Your task to perform on an android device: set the timer Image 0: 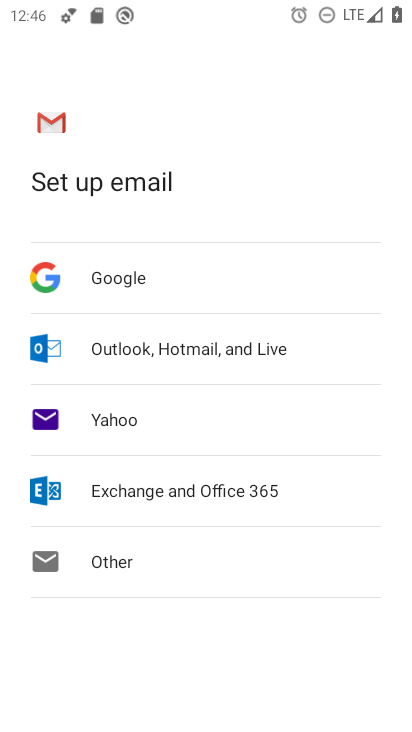
Step 0: press home button
Your task to perform on an android device: set the timer Image 1: 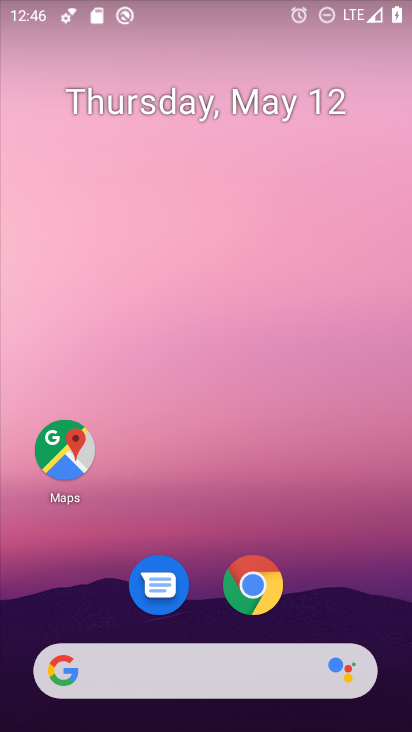
Step 1: drag from (237, 492) to (267, 39)
Your task to perform on an android device: set the timer Image 2: 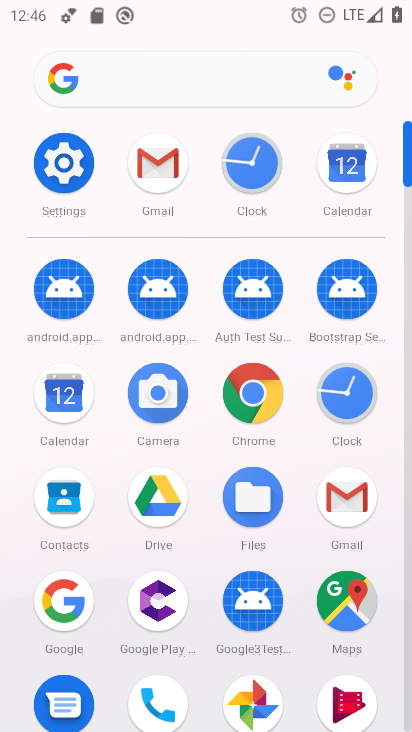
Step 2: click (246, 145)
Your task to perform on an android device: set the timer Image 3: 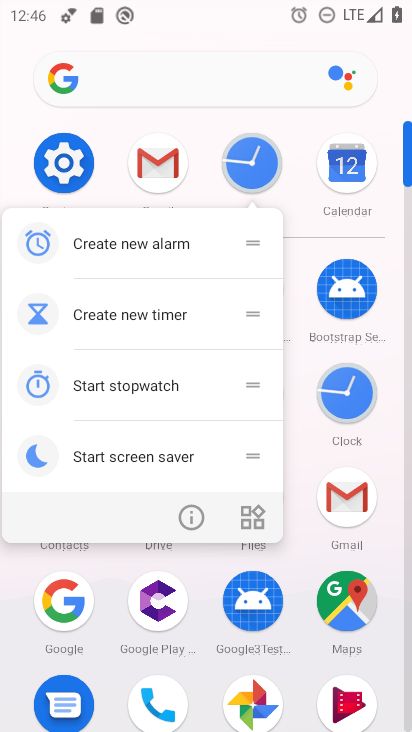
Step 3: click (260, 161)
Your task to perform on an android device: set the timer Image 4: 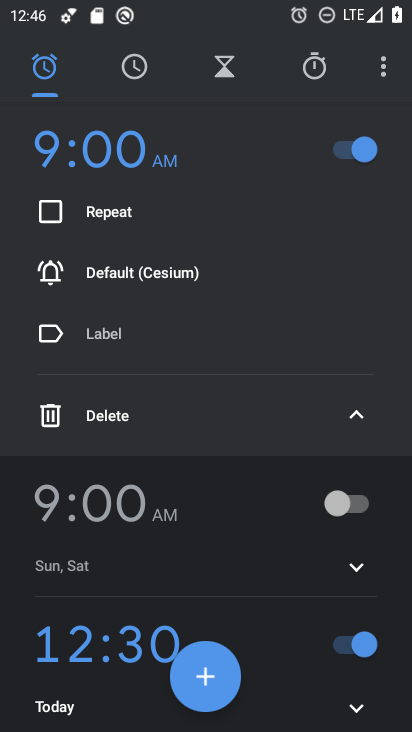
Step 4: click (228, 64)
Your task to perform on an android device: set the timer Image 5: 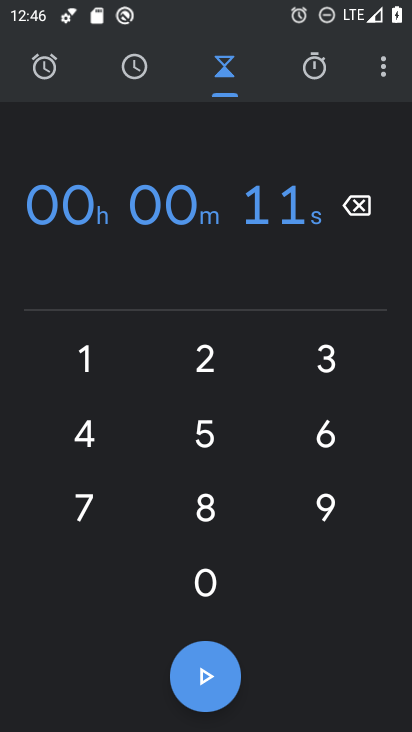
Step 5: click (86, 361)
Your task to perform on an android device: set the timer Image 6: 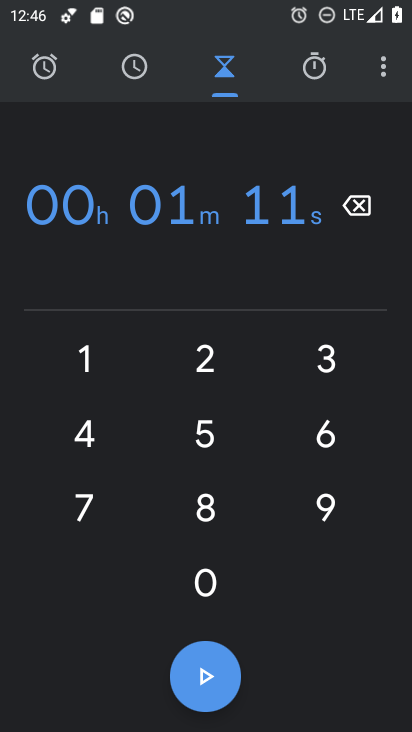
Step 6: click (86, 361)
Your task to perform on an android device: set the timer Image 7: 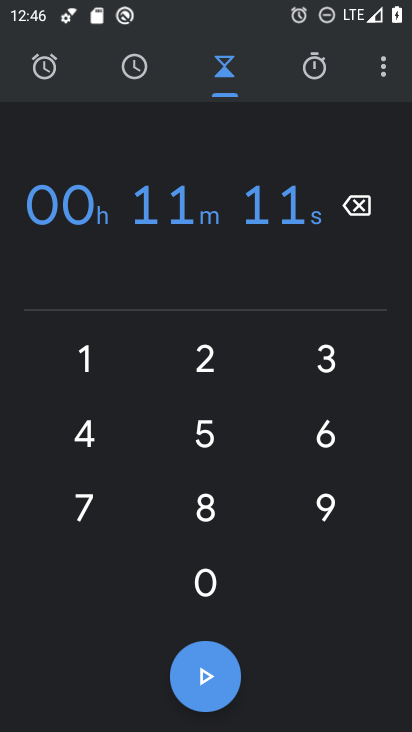
Step 7: task complete